Your task to perform on an android device: Open the web browser Image 0: 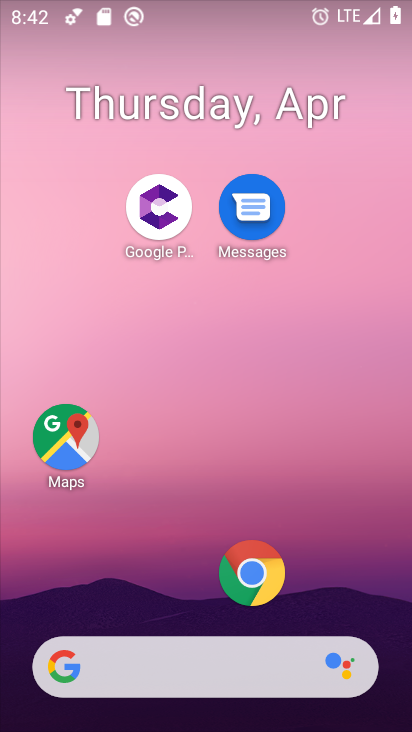
Step 0: drag from (189, 604) to (244, 64)
Your task to perform on an android device: Open the web browser Image 1: 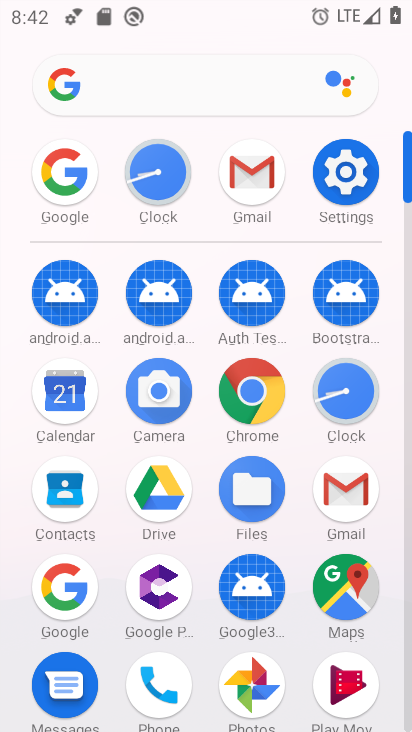
Step 1: click (243, 393)
Your task to perform on an android device: Open the web browser Image 2: 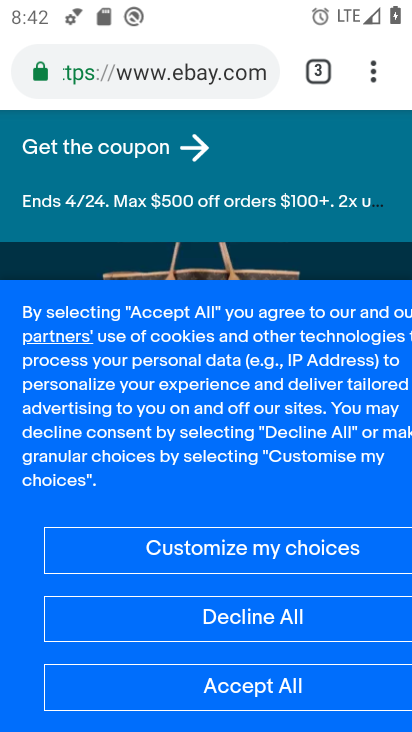
Step 2: click (249, 692)
Your task to perform on an android device: Open the web browser Image 3: 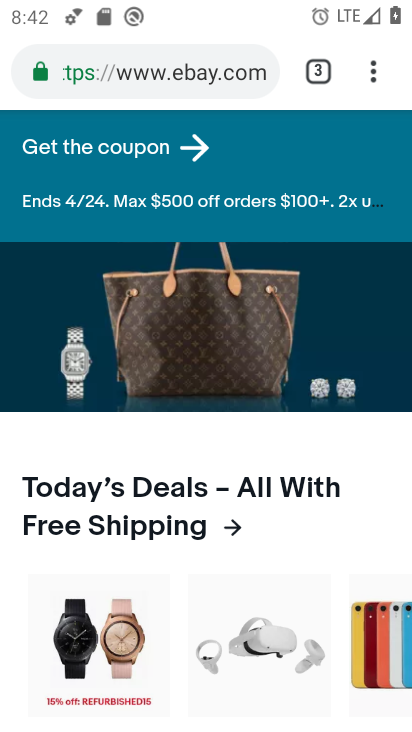
Step 3: click (321, 61)
Your task to perform on an android device: Open the web browser Image 4: 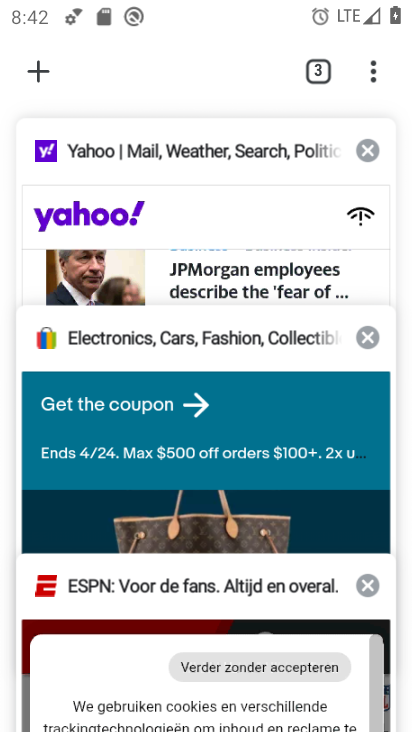
Step 4: click (365, 147)
Your task to perform on an android device: Open the web browser Image 5: 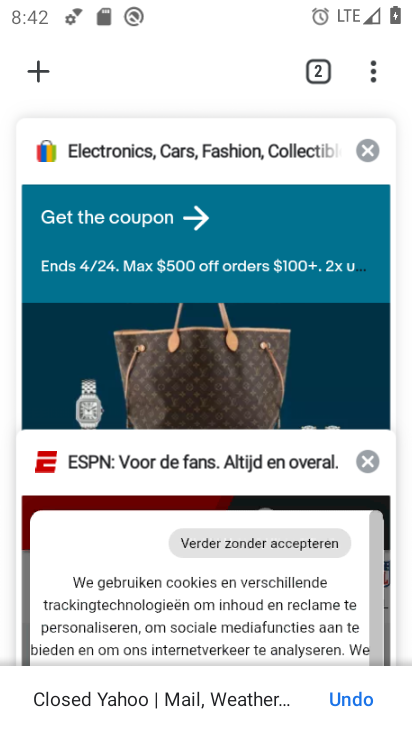
Step 5: click (367, 148)
Your task to perform on an android device: Open the web browser Image 6: 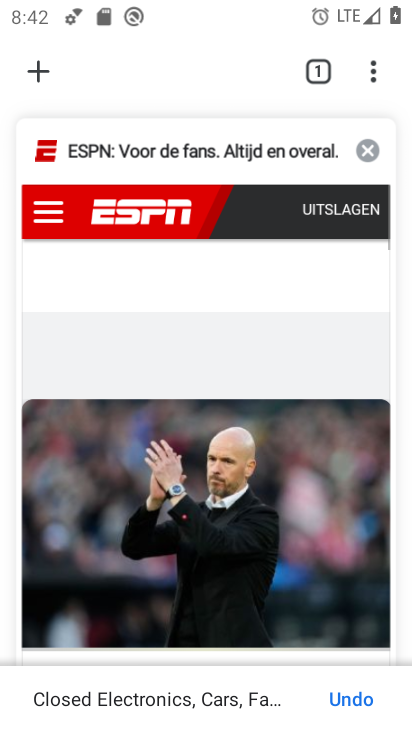
Step 6: click (365, 145)
Your task to perform on an android device: Open the web browser Image 7: 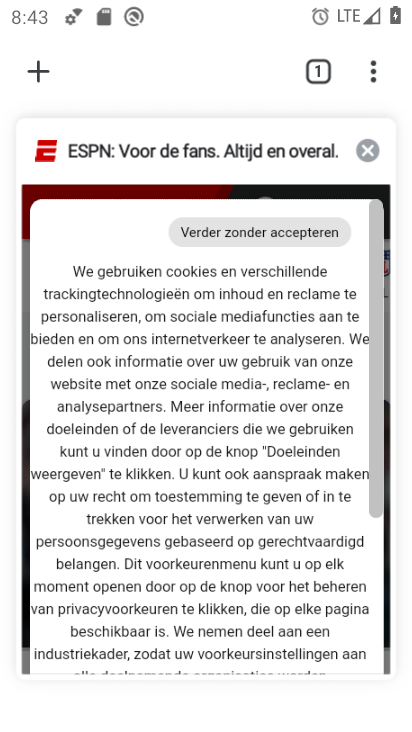
Step 7: click (240, 363)
Your task to perform on an android device: Open the web browser Image 8: 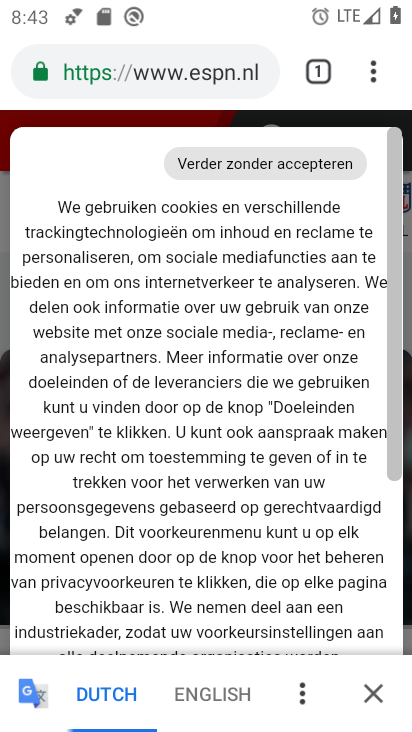
Step 8: task complete